Your task to perform on an android device: open a bookmark in the chrome app Image 0: 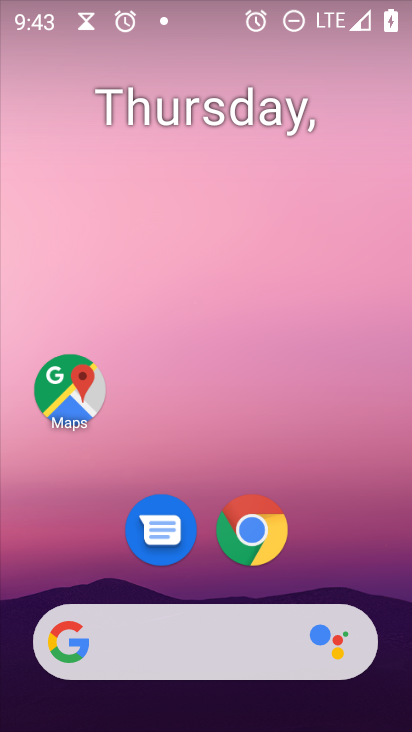
Step 0: drag from (348, 524) to (312, 42)
Your task to perform on an android device: open a bookmark in the chrome app Image 1: 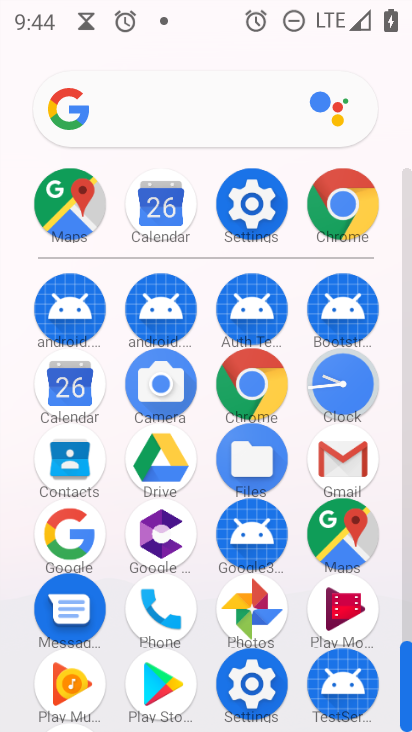
Step 1: drag from (7, 588) to (30, 256)
Your task to perform on an android device: open a bookmark in the chrome app Image 2: 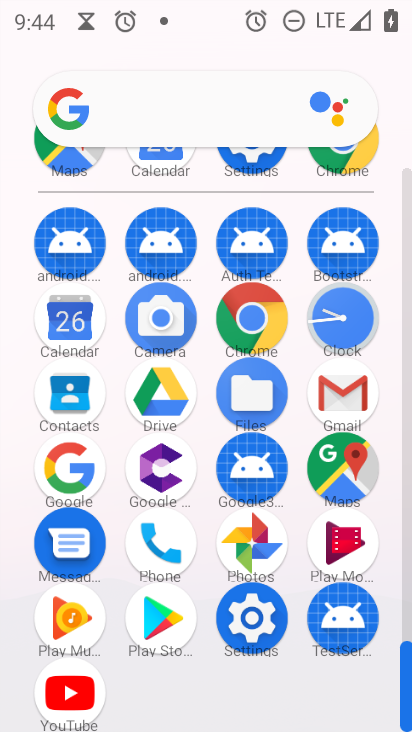
Step 2: click (252, 314)
Your task to perform on an android device: open a bookmark in the chrome app Image 3: 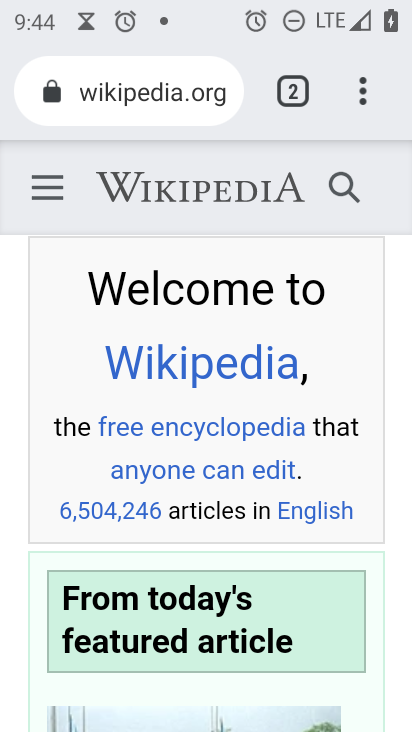
Step 3: drag from (362, 85) to (167, 336)
Your task to perform on an android device: open a bookmark in the chrome app Image 4: 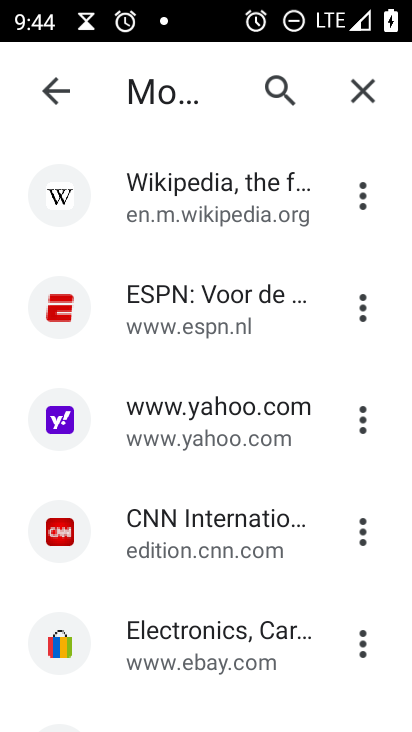
Step 4: click (183, 425)
Your task to perform on an android device: open a bookmark in the chrome app Image 5: 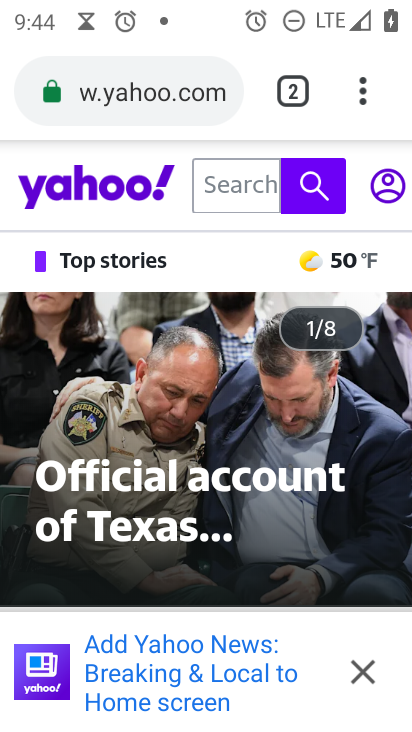
Step 5: task complete